Your task to perform on an android device: add a label to a message in the gmail app Image 0: 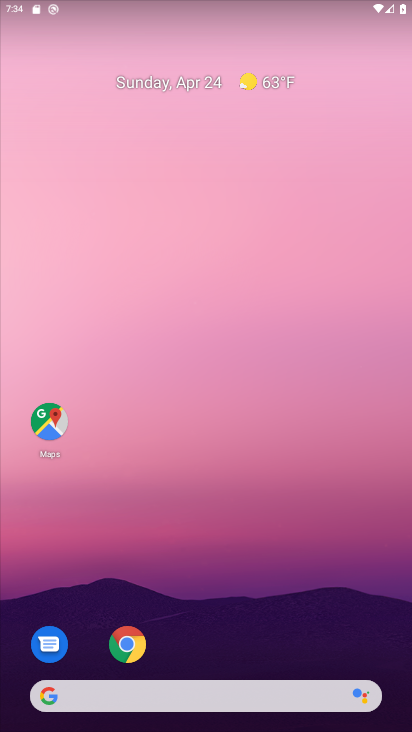
Step 0: drag from (218, 661) to (236, 126)
Your task to perform on an android device: add a label to a message in the gmail app Image 1: 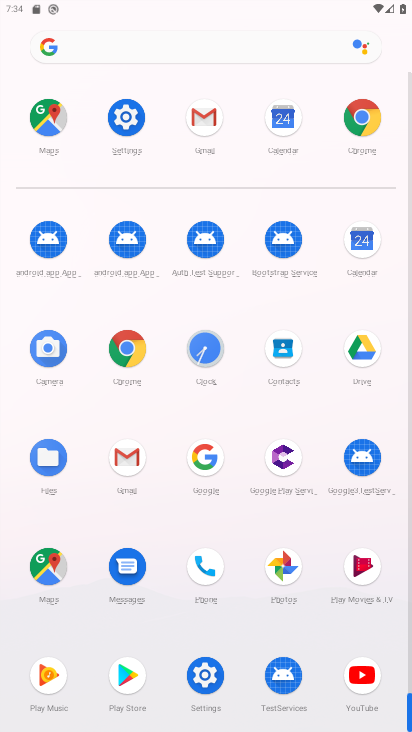
Step 1: click (209, 111)
Your task to perform on an android device: add a label to a message in the gmail app Image 2: 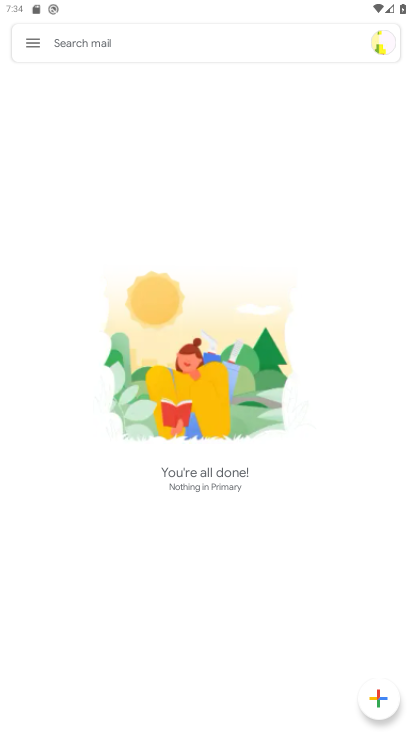
Step 2: click (31, 38)
Your task to perform on an android device: add a label to a message in the gmail app Image 3: 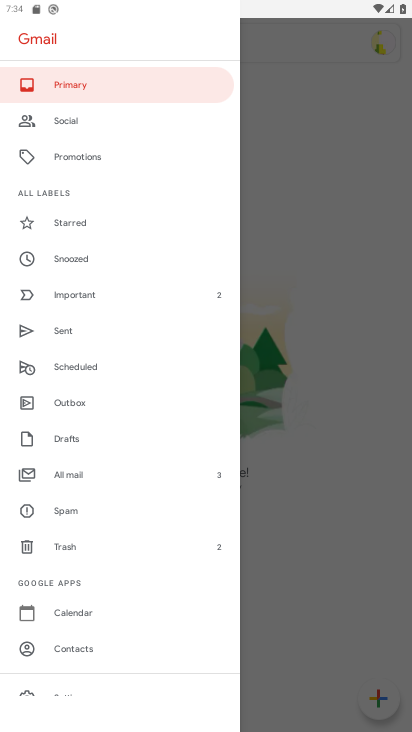
Step 3: click (76, 471)
Your task to perform on an android device: add a label to a message in the gmail app Image 4: 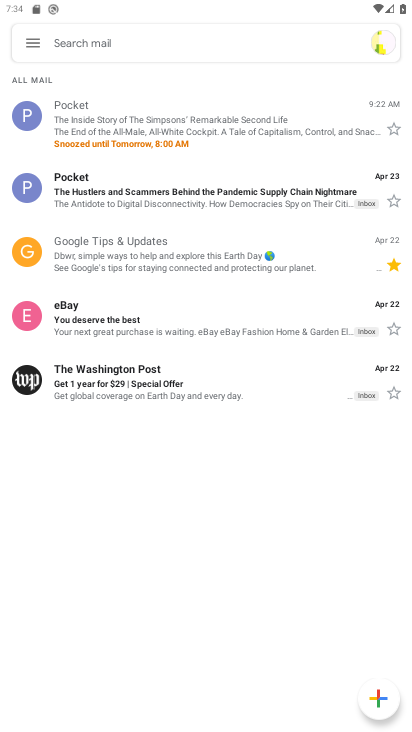
Step 4: click (23, 314)
Your task to perform on an android device: add a label to a message in the gmail app Image 5: 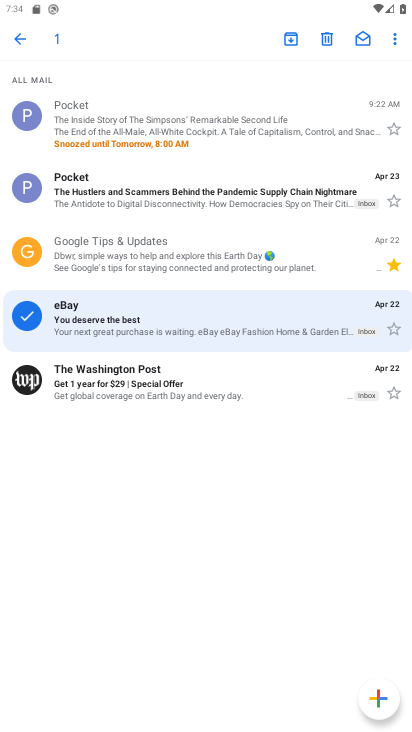
Step 5: click (393, 41)
Your task to perform on an android device: add a label to a message in the gmail app Image 6: 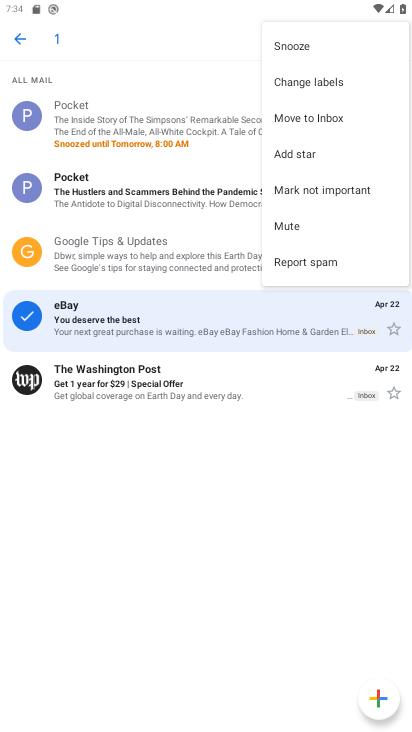
Step 6: click (313, 80)
Your task to perform on an android device: add a label to a message in the gmail app Image 7: 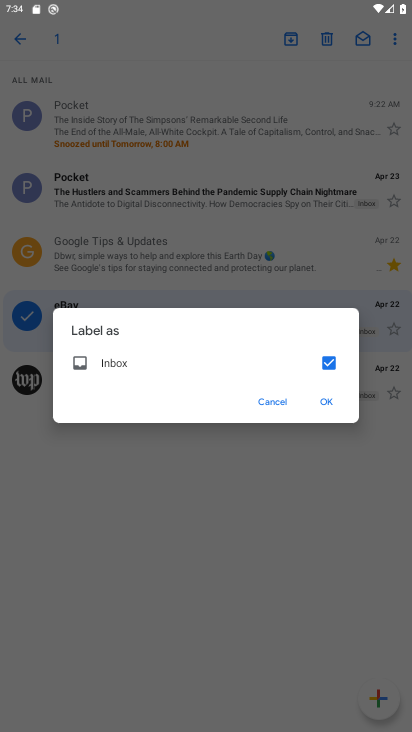
Step 7: click (332, 361)
Your task to perform on an android device: add a label to a message in the gmail app Image 8: 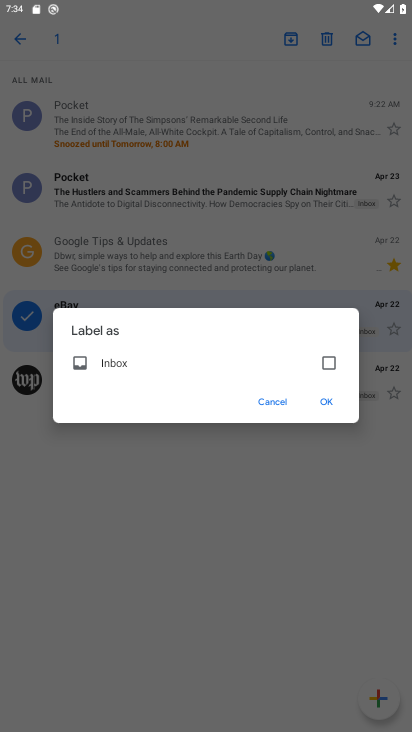
Step 8: click (320, 398)
Your task to perform on an android device: add a label to a message in the gmail app Image 9: 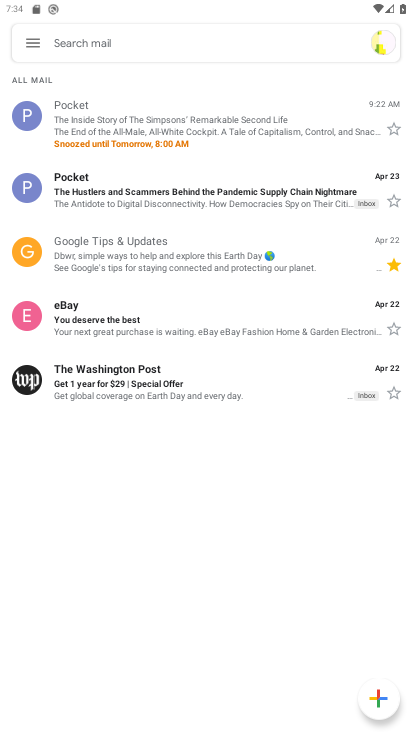
Step 9: task complete